Your task to perform on an android device: Is it going to rain today? Image 0: 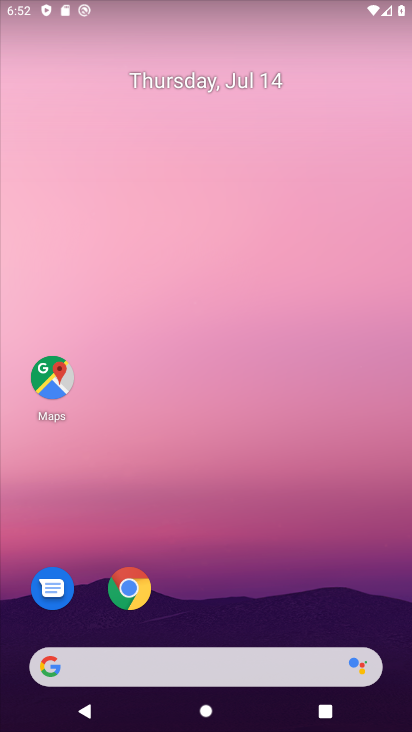
Step 0: drag from (390, 629) to (238, 2)
Your task to perform on an android device: Is it going to rain today? Image 1: 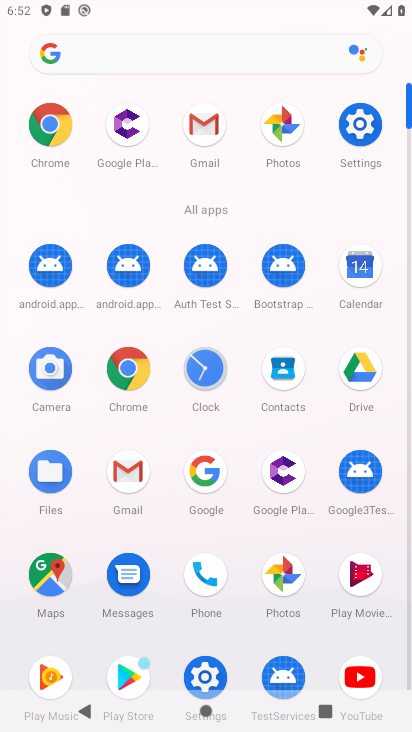
Step 1: click (198, 486)
Your task to perform on an android device: Is it going to rain today? Image 2: 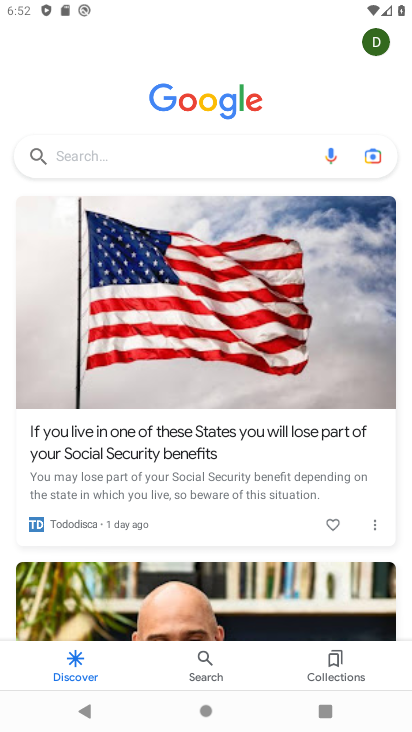
Step 2: click (141, 171)
Your task to perform on an android device: Is it going to rain today? Image 3: 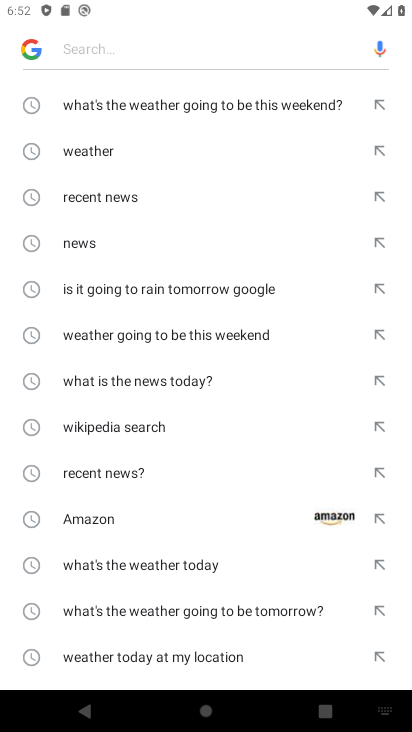
Step 3: drag from (131, 511) to (128, 242)
Your task to perform on an android device: Is it going to rain today? Image 4: 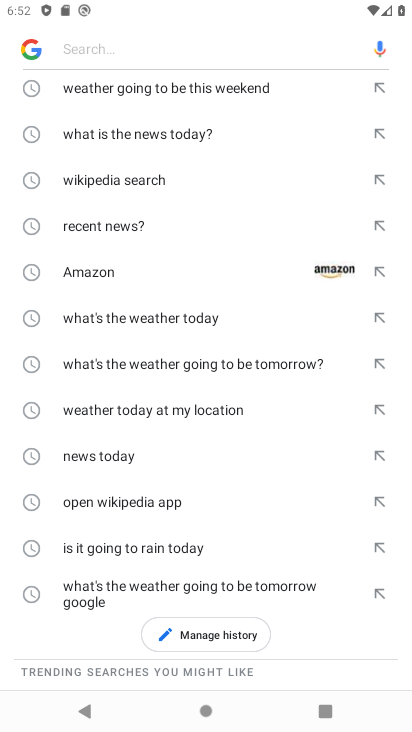
Step 4: click (139, 549)
Your task to perform on an android device: Is it going to rain today? Image 5: 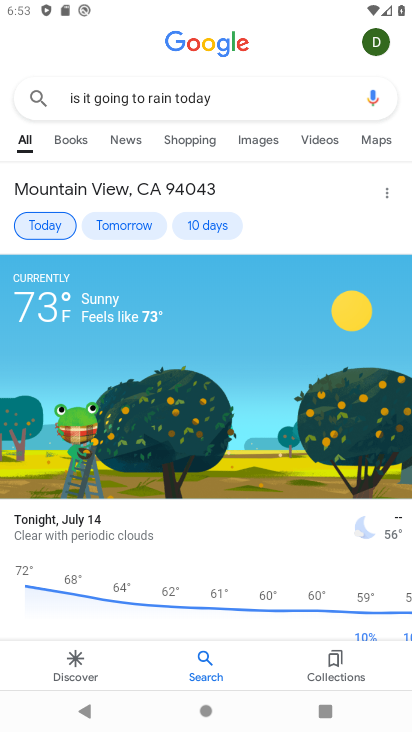
Step 5: task complete